Your task to perform on an android device: open app "AliExpress" (install if not already installed) Image 0: 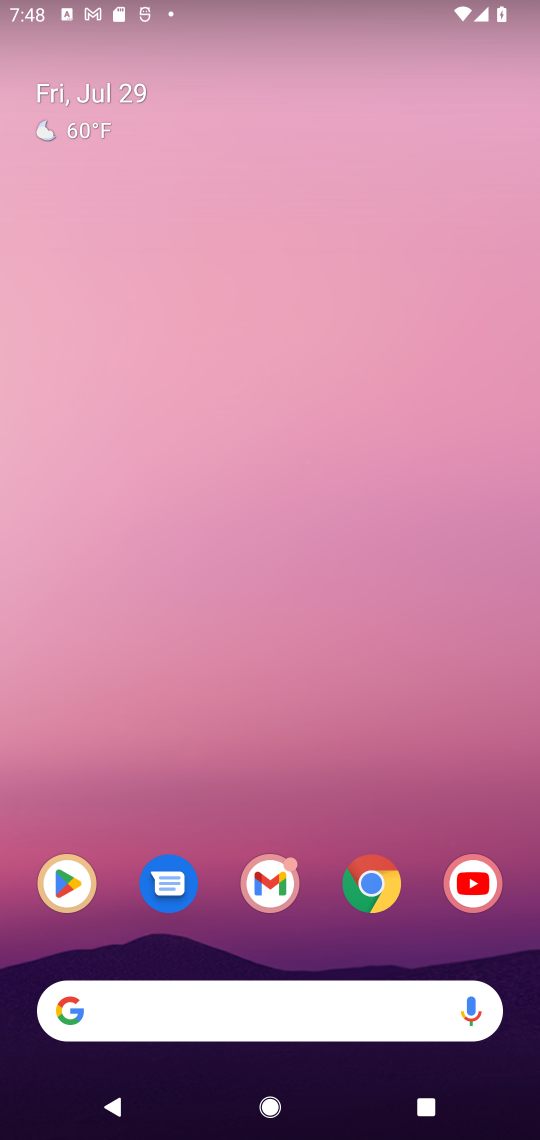
Step 0: click (51, 889)
Your task to perform on an android device: open app "AliExpress" (install if not already installed) Image 1: 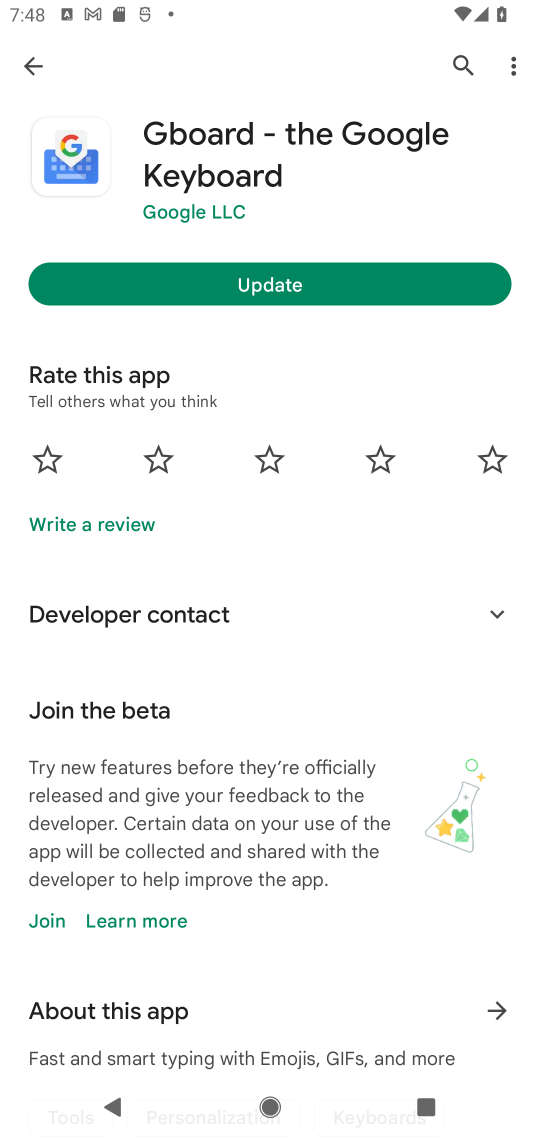
Step 1: click (452, 55)
Your task to perform on an android device: open app "AliExpress" (install if not already installed) Image 2: 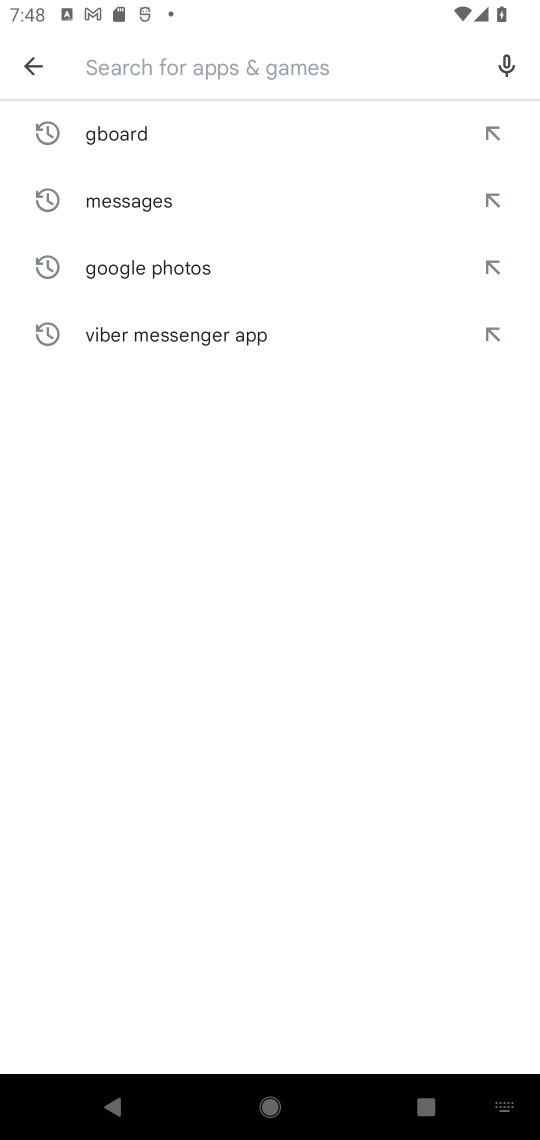
Step 2: click (181, 59)
Your task to perform on an android device: open app "AliExpress" (install if not already installed) Image 3: 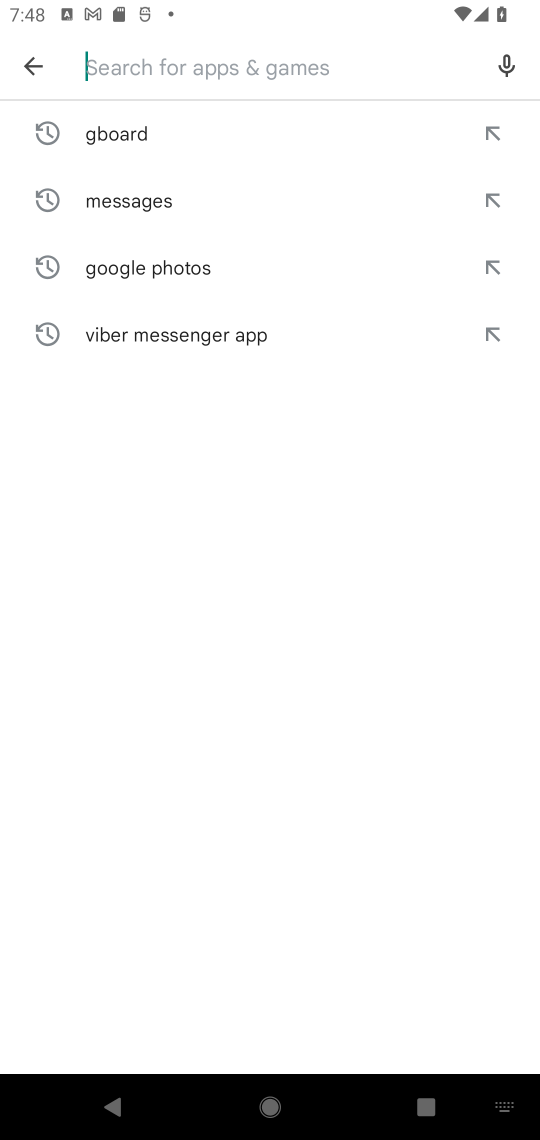
Step 3: click (187, 69)
Your task to perform on an android device: open app "AliExpress" (install if not already installed) Image 4: 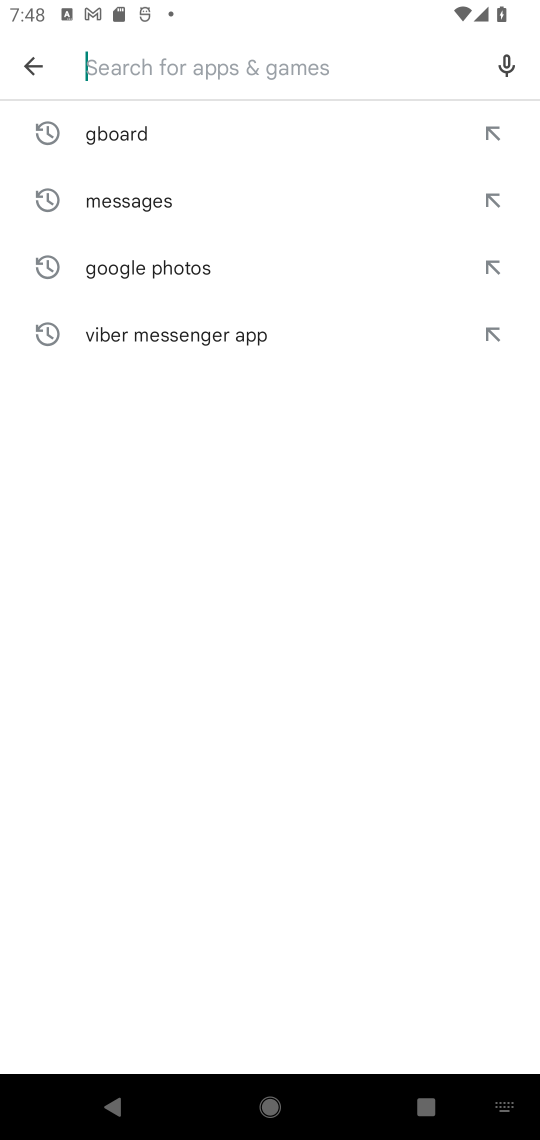
Step 4: type "aliexpress"
Your task to perform on an android device: open app "AliExpress" (install if not already installed) Image 5: 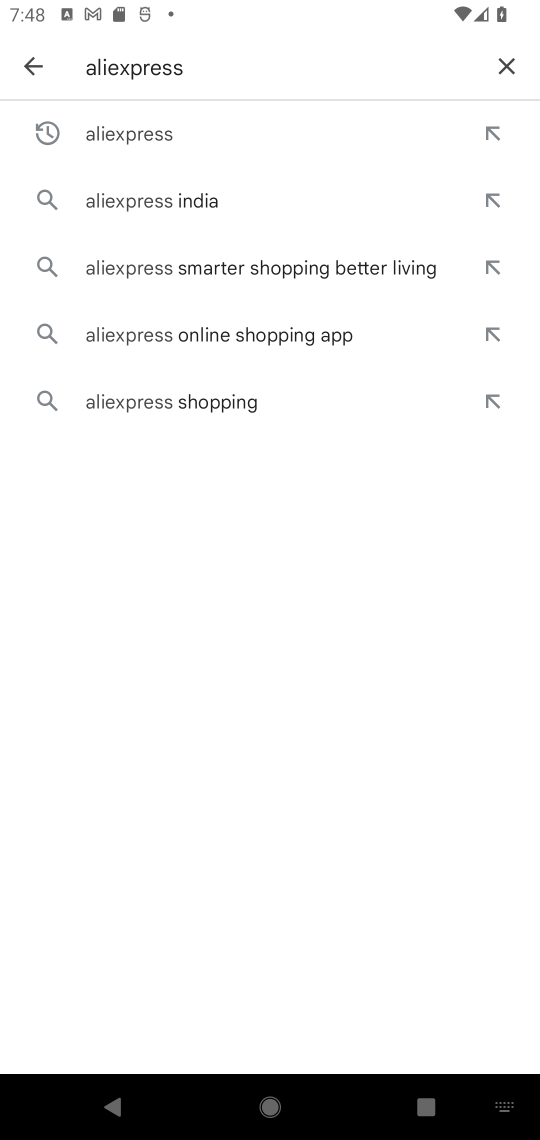
Step 5: click (144, 119)
Your task to perform on an android device: open app "AliExpress" (install if not already installed) Image 6: 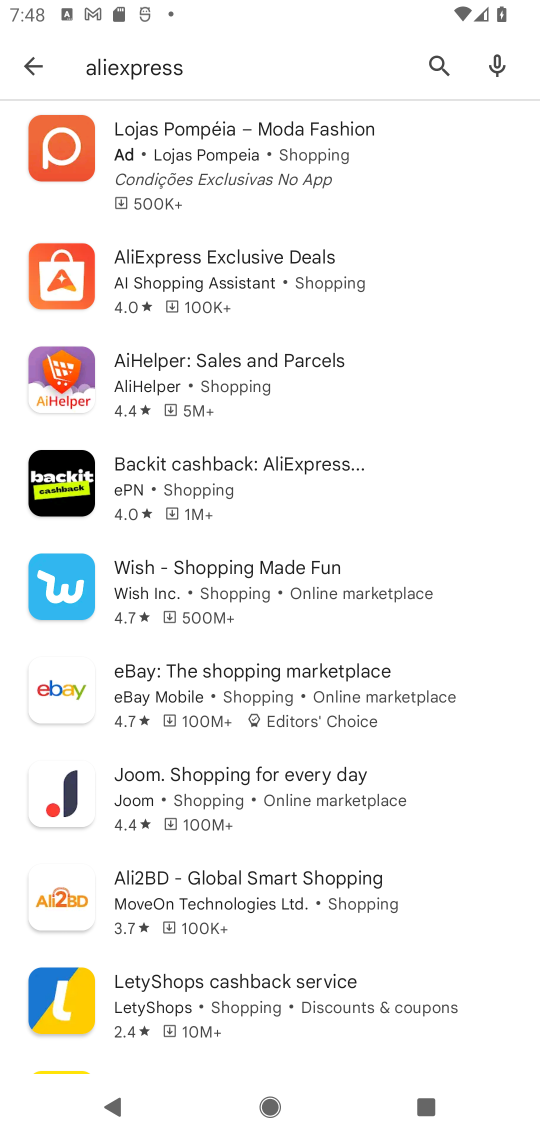
Step 6: click (261, 269)
Your task to perform on an android device: open app "AliExpress" (install if not already installed) Image 7: 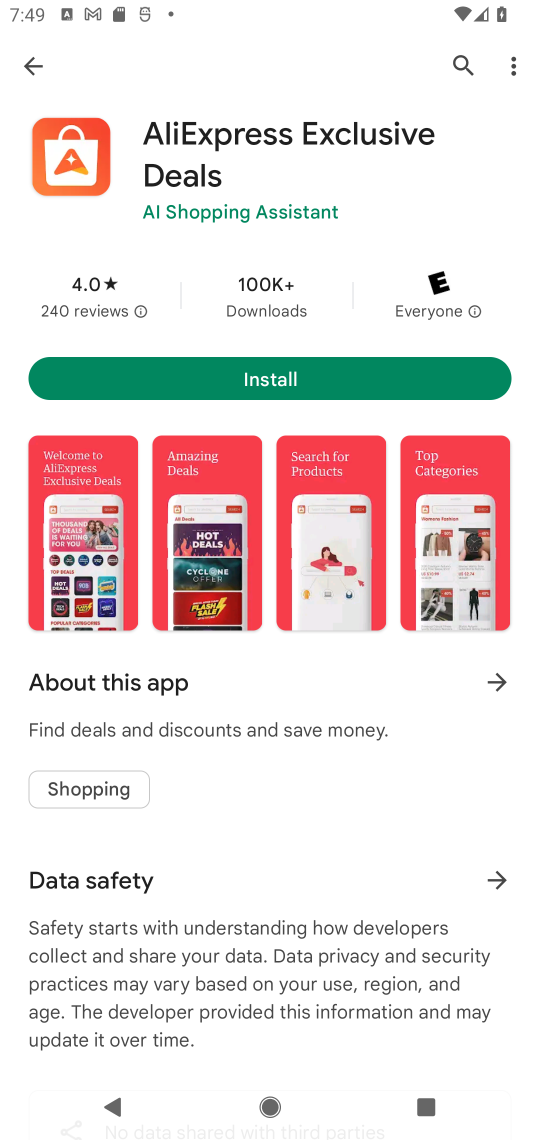
Step 7: click (308, 388)
Your task to perform on an android device: open app "AliExpress" (install if not already installed) Image 8: 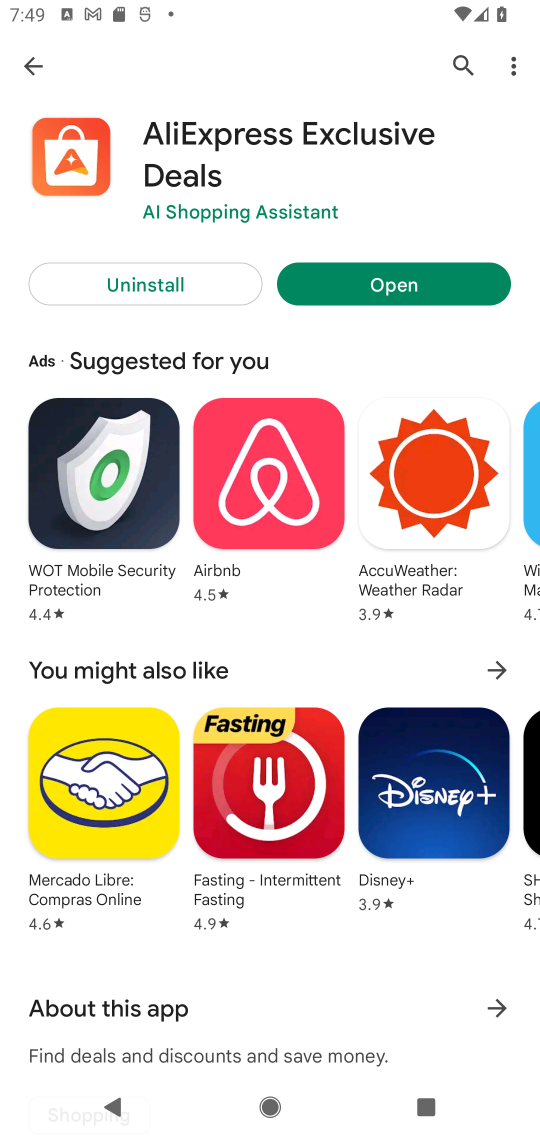
Step 8: click (411, 290)
Your task to perform on an android device: open app "AliExpress" (install if not already installed) Image 9: 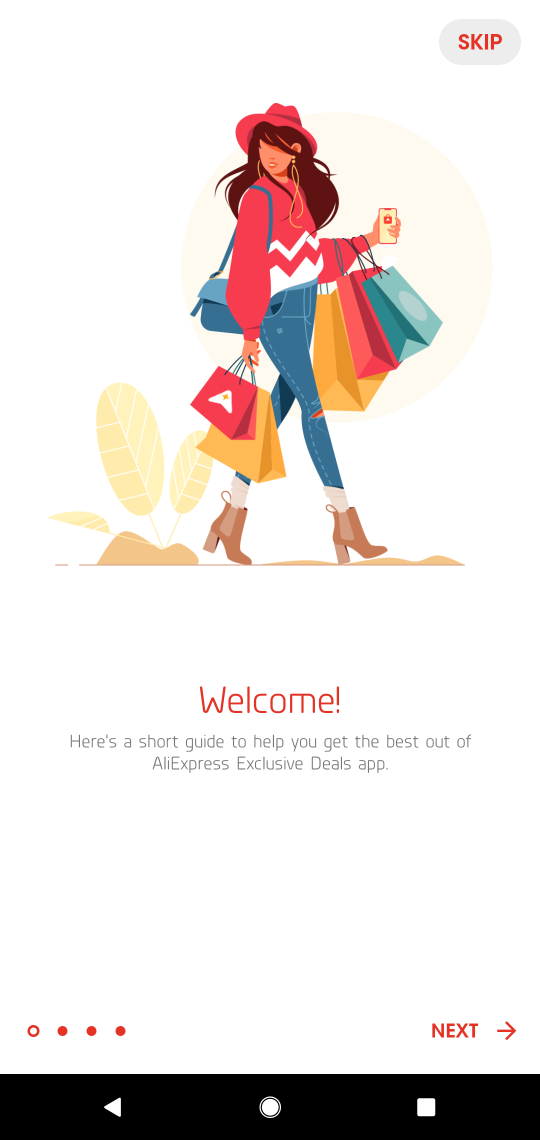
Step 9: task complete